Your task to perform on an android device: toggle translation in the chrome app Image 0: 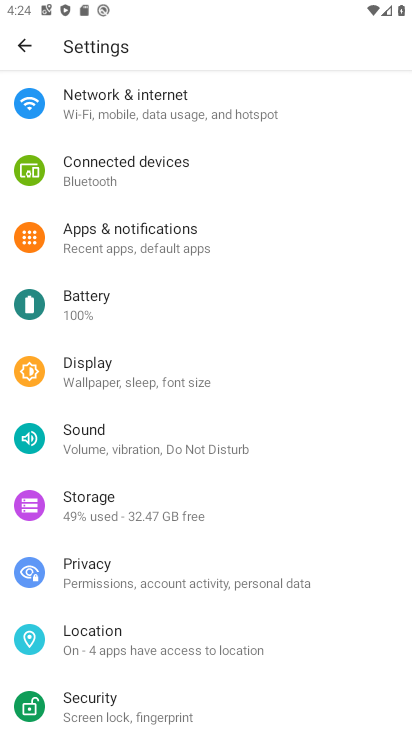
Step 0: press back button
Your task to perform on an android device: toggle translation in the chrome app Image 1: 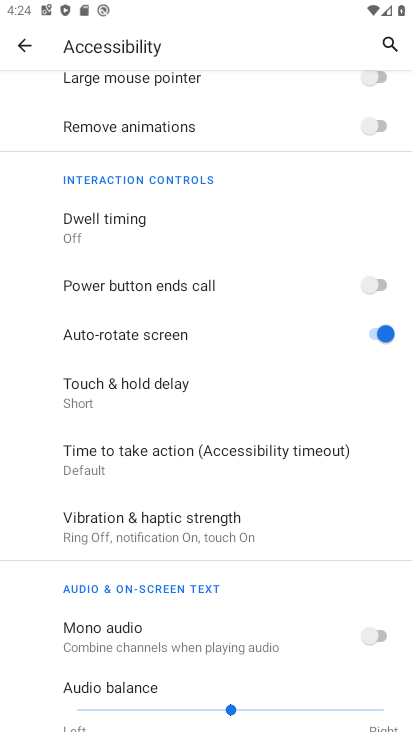
Step 1: press back button
Your task to perform on an android device: toggle translation in the chrome app Image 2: 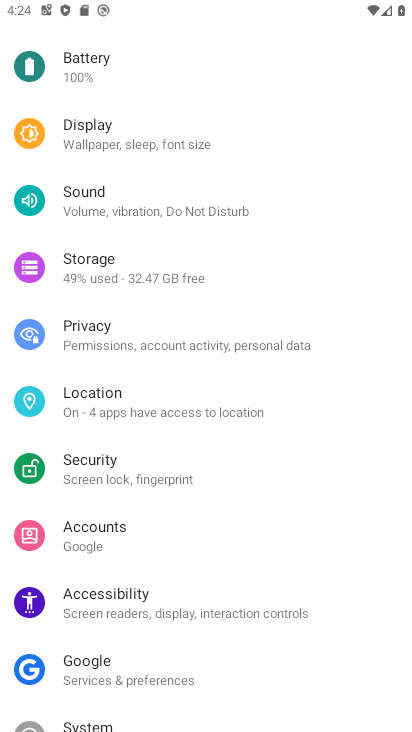
Step 2: press back button
Your task to perform on an android device: toggle translation in the chrome app Image 3: 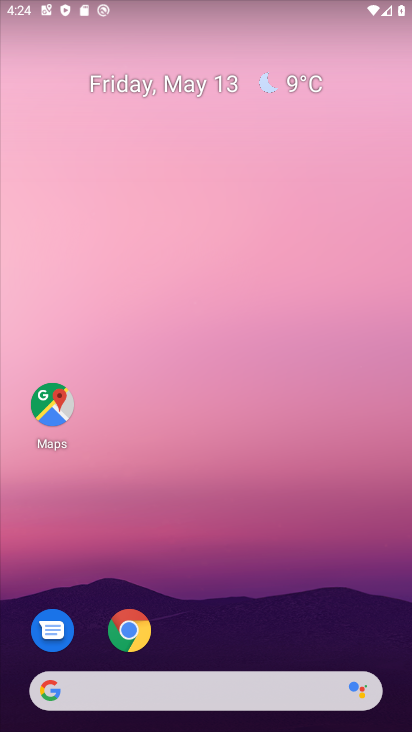
Step 3: press home button
Your task to perform on an android device: toggle translation in the chrome app Image 4: 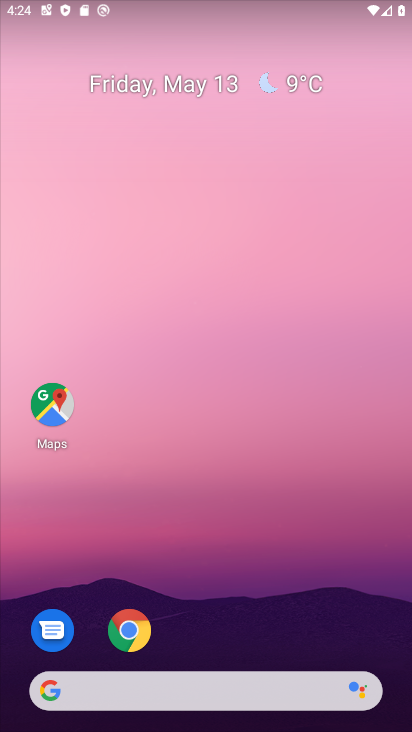
Step 4: drag from (281, 562) to (259, 79)
Your task to perform on an android device: toggle translation in the chrome app Image 5: 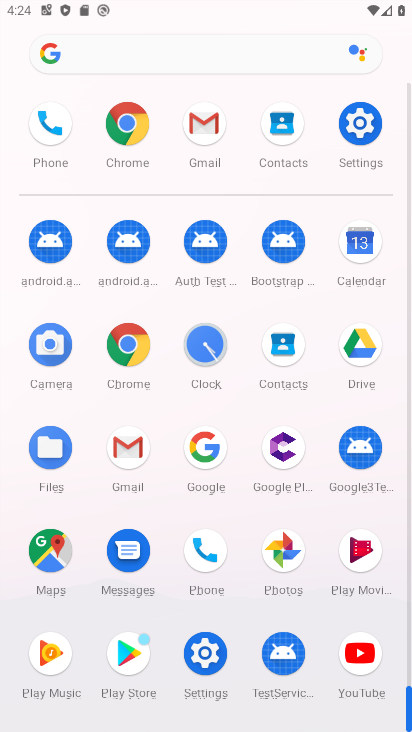
Step 5: drag from (5, 520) to (12, 185)
Your task to perform on an android device: toggle translation in the chrome app Image 6: 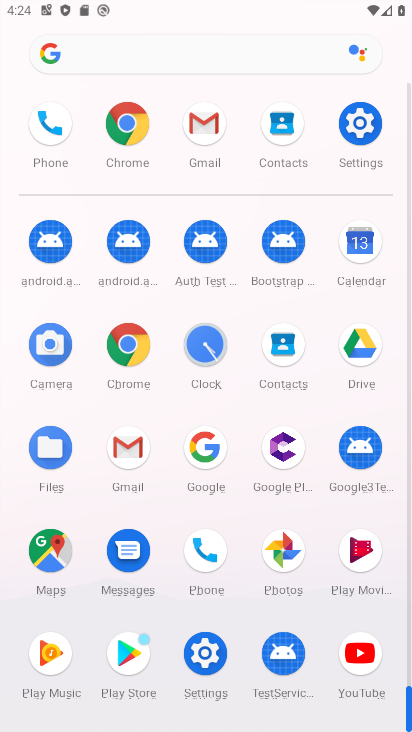
Step 6: drag from (19, 535) to (17, 219)
Your task to perform on an android device: toggle translation in the chrome app Image 7: 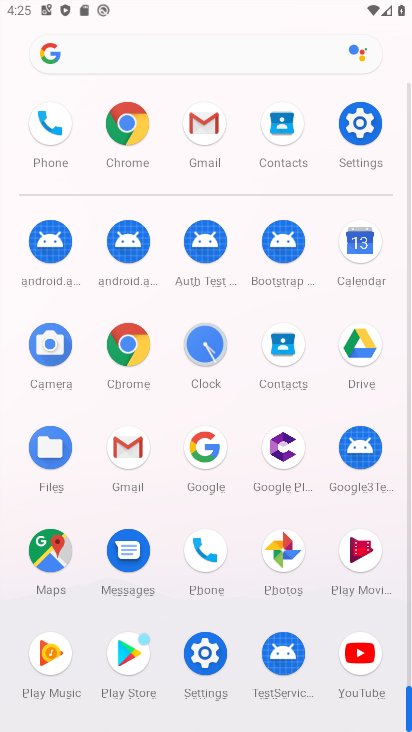
Step 7: click (126, 339)
Your task to perform on an android device: toggle translation in the chrome app Image 8: 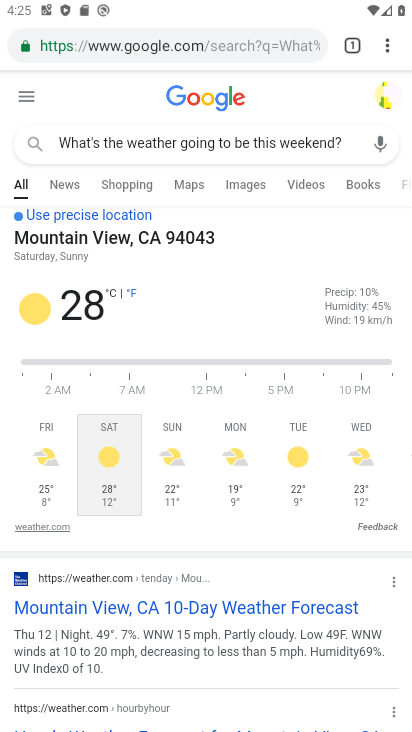
Step 8: drag from (386, 42) to (237, 502)
Your task to perform on an android device: toggle translation in the chrome app Image 9: 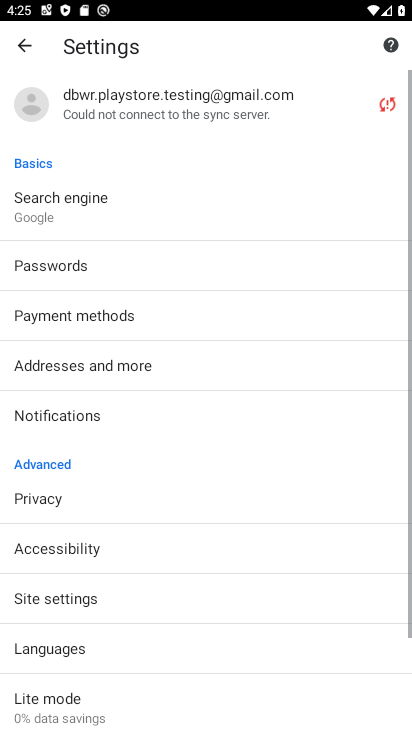
Step 9: drag from (212, 631) to (239, 220)
Your task to perform on an android device: toggle translation in the chrome app Image 10: 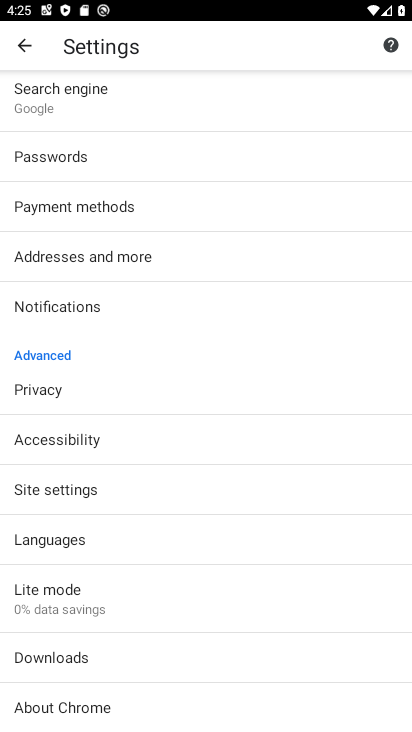
Step 10: click (96, 539)
Your task to perform on an android device: toggle translation in the chrome app Image 11: 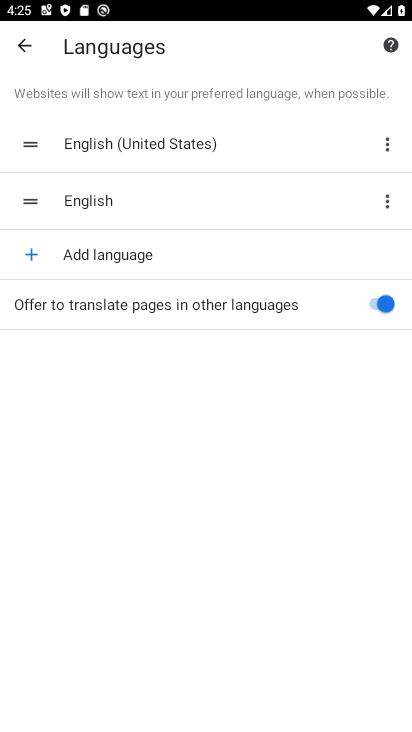
Step 11: task complete